Your task to perform on an android device: Is it going to rain today? Image 0: 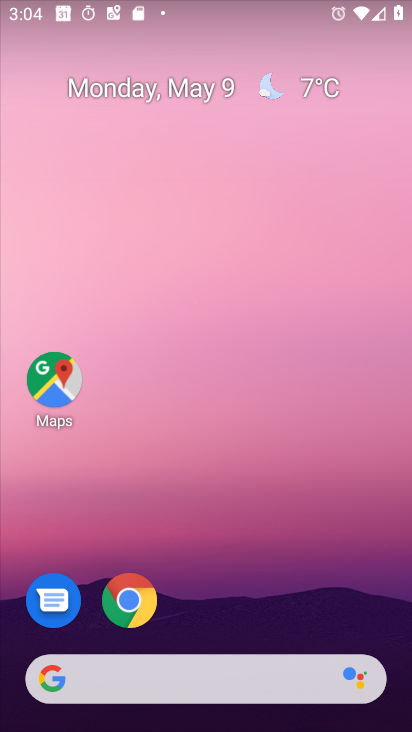
Step 0: click (294, 88)
Your task to perform on an android device: Is it going to rain today? Image 1: 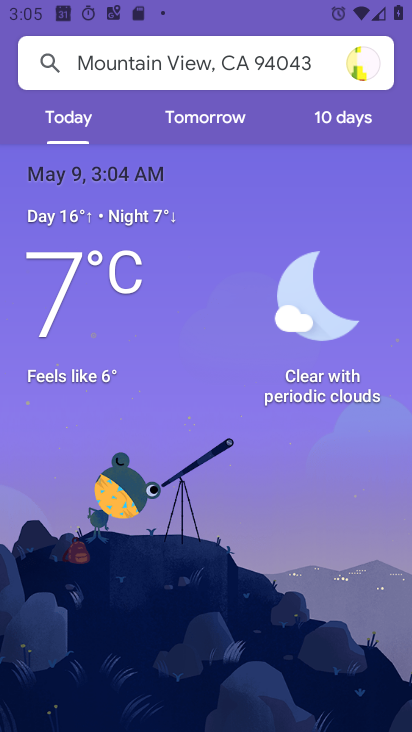
Step 1: task complete